Your task to perform on an android device: What's the news this week? Image 0: 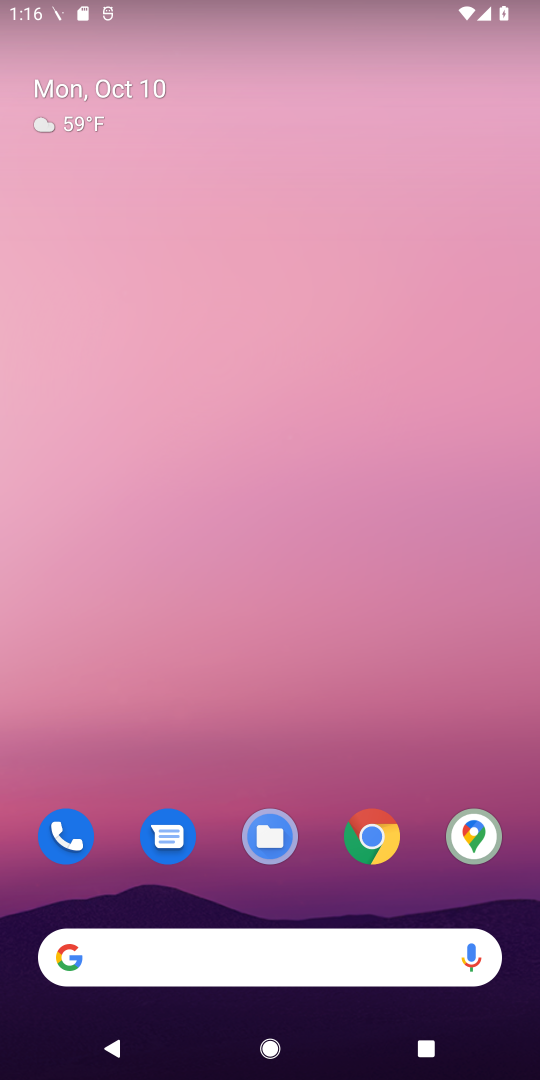
Step 0: click (366, 840)
Your task to perform on an android device: What's the news this week? Image 1: 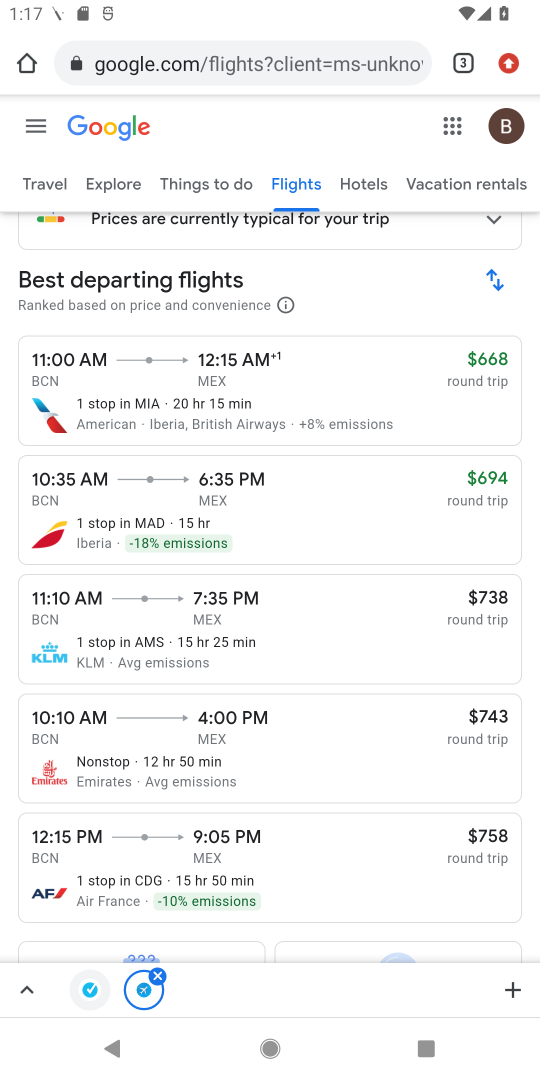
Step 1: click (308, 62)
Your task to perform on an android device: What's the news this week? Image 2: 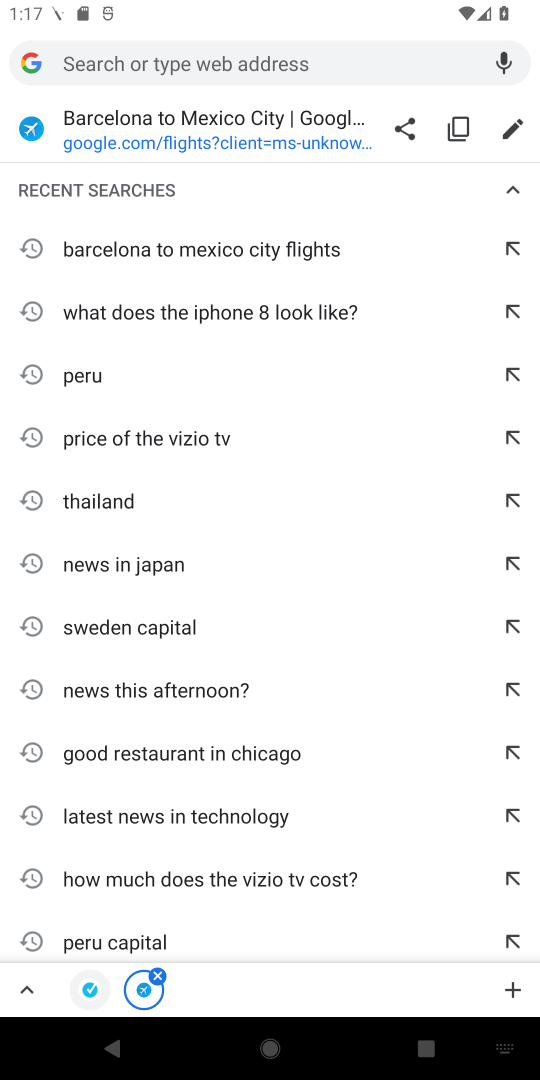
Step 2: type "news this week"
Your task to perform on an android device: What's the news this week? Image 3: 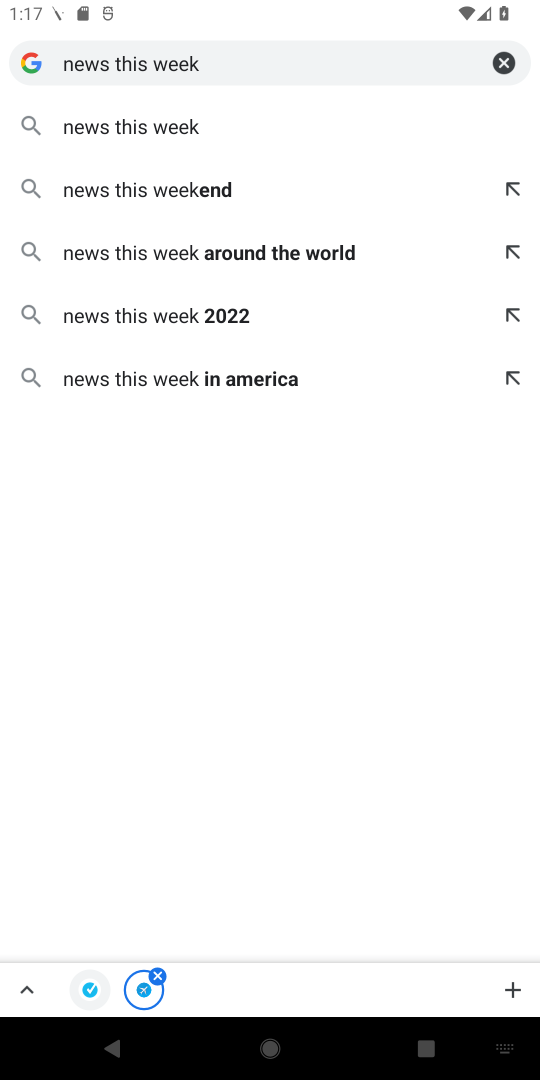
Step 3: click (239, 118)
Your task to perform on an android device: What's the news this week? Image 4: 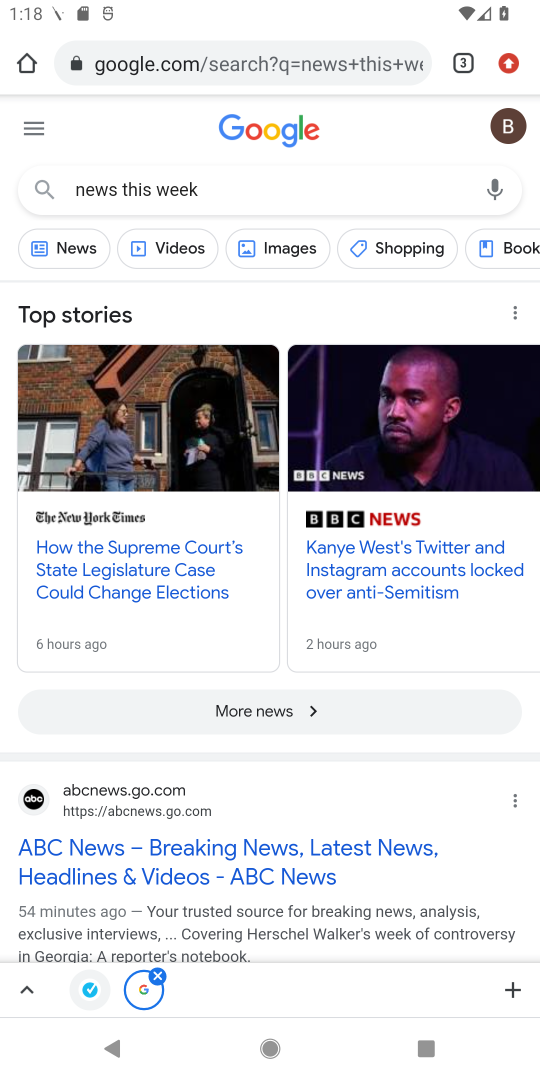
Step 4: click (72, 254)
Your task to perform on an android device: What's the news this week? Image 5: 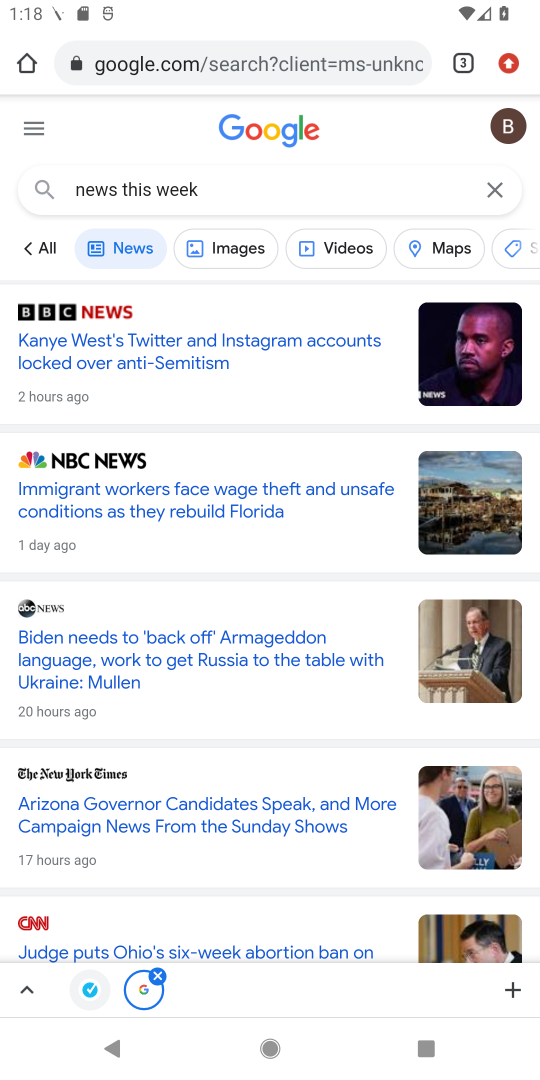
Step 5: task complete